Your task to perform on an android device: toggle translation in the chrome app Image 0: 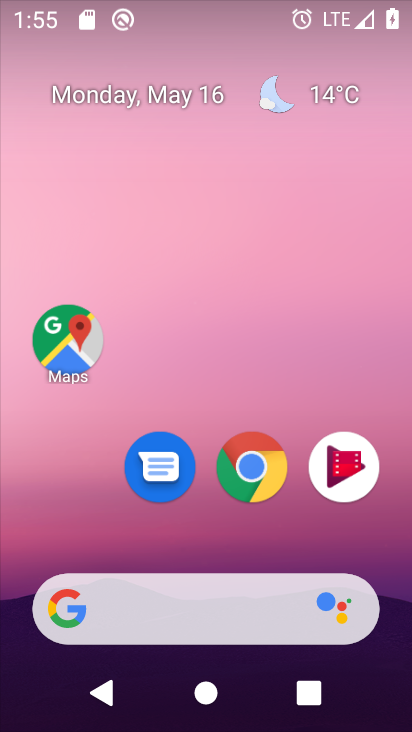
Step 0: drag from (178, 542) to (224, 205)
Your task to perform on an android device: toggle translation in the chrome app Image 1: 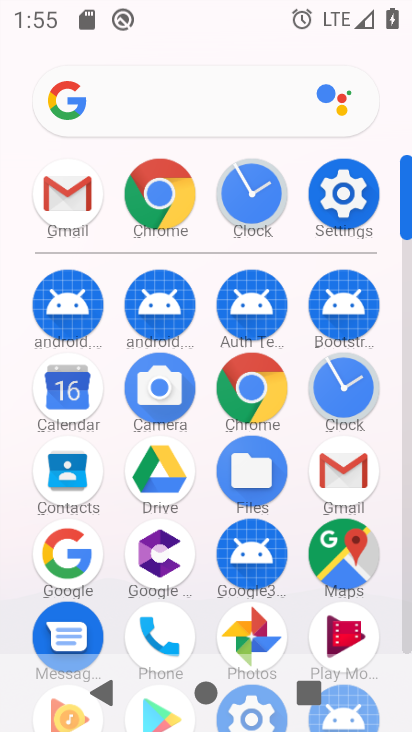
Step 1: click (324, 187)
Your task to perform on an android device: toggle translation in the chrome app Image 2: 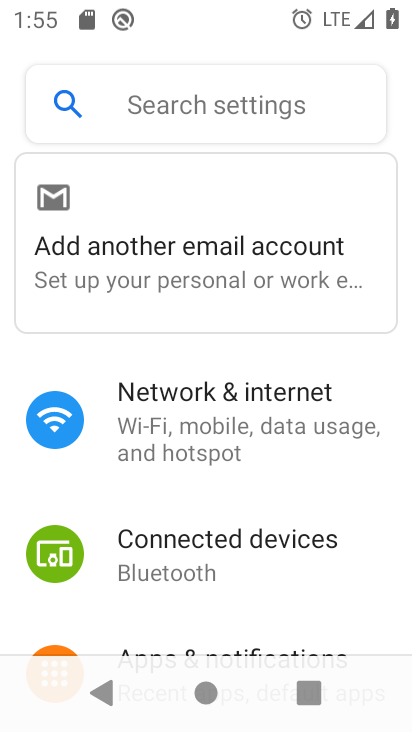
Step 2: press home button
Your task to perform on an android device: toggle translation in the chrome app Image 3: 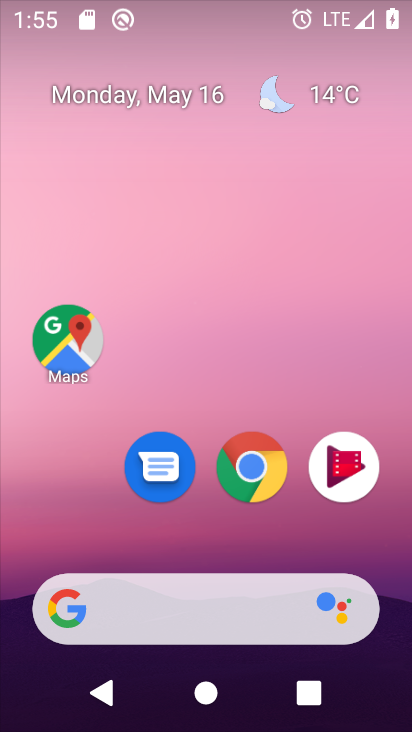
Step 3: drag from (206, 435) to (227, 206)
Your task to perform on an android device: toggle translation in the chrome app Image 4: 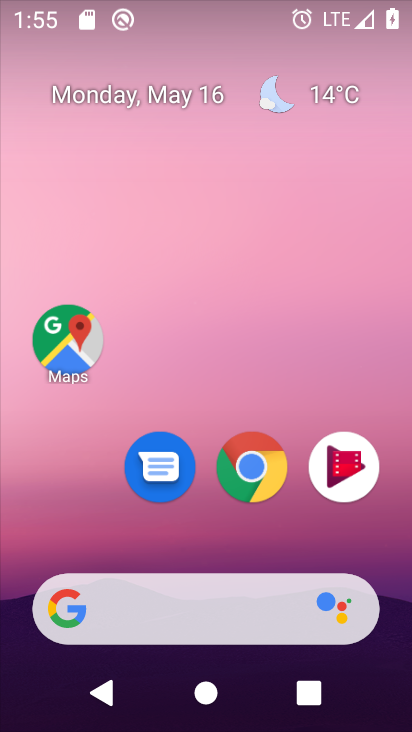
Step 4: click (238, 468)
Your task to perform on an android device: toggle translation in the chrome app Image 5: 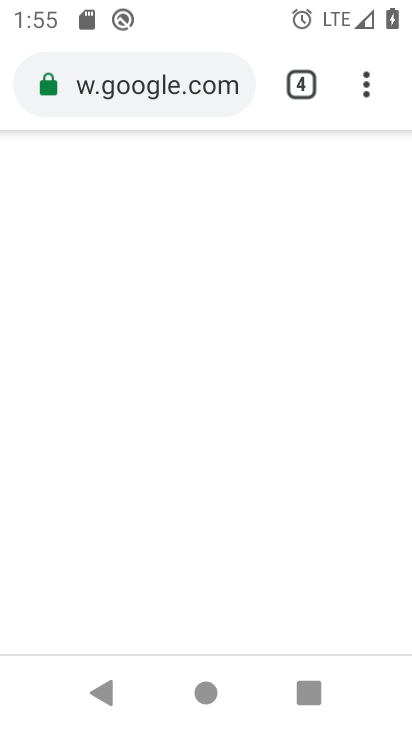
Step 5: click (352, 78)
Your task to perform on an android device: toggle translation in the chrome app Image 6: 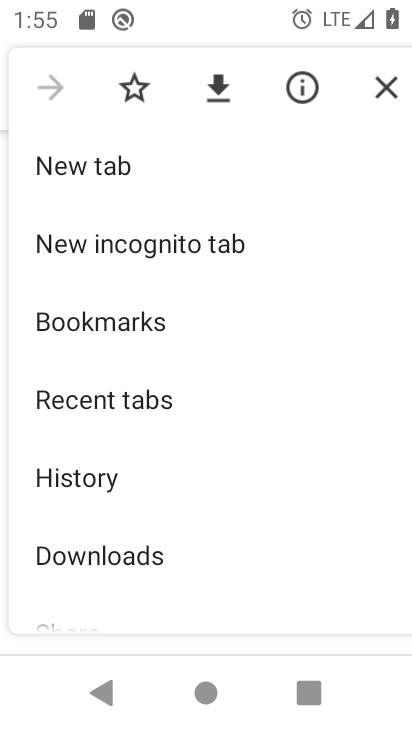
Step 6: drag from (196, 538) to (281, 200)
Your task to perform on an android device: toggle translation in the chrome app Image 7: 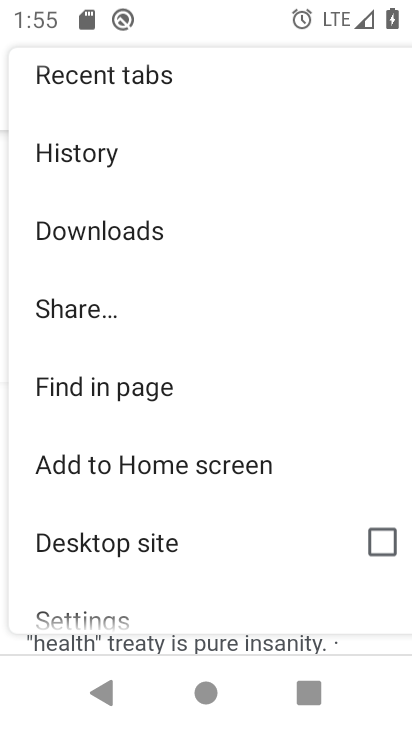
Step 7: drag from (94, 568) to (161, 362)
Your task to perform on an android device: toggle translation in the chrome app Image 8: 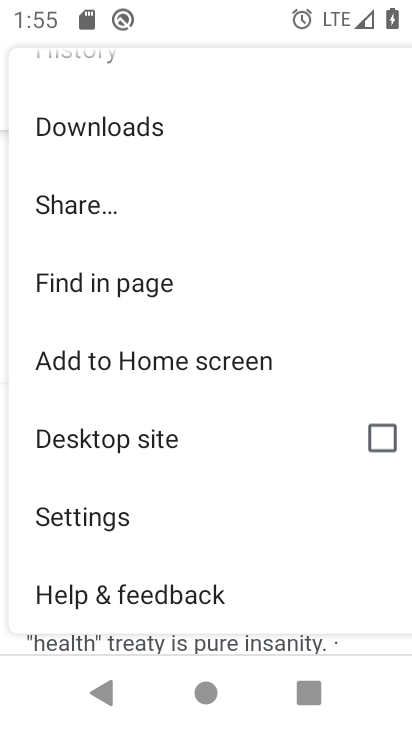
Step 8: click (99, 513)
Your task to perform on an android device: toggle translation in the chrome app Image 9: 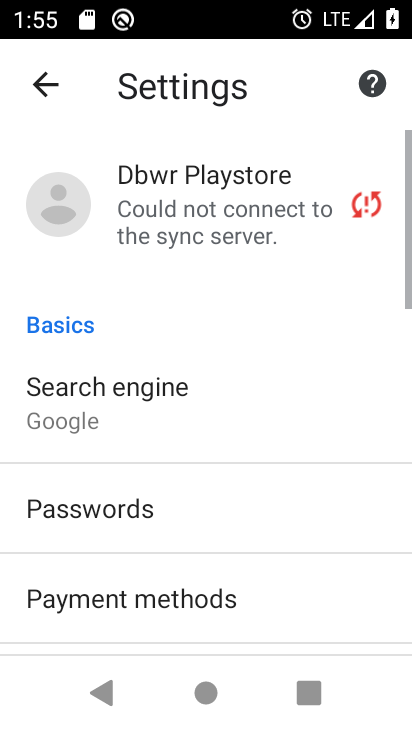
Step 9: drag from (248, 547) to (283, 151)
Your task to perform on an android device: toggle translation in the chrome app Image 10: 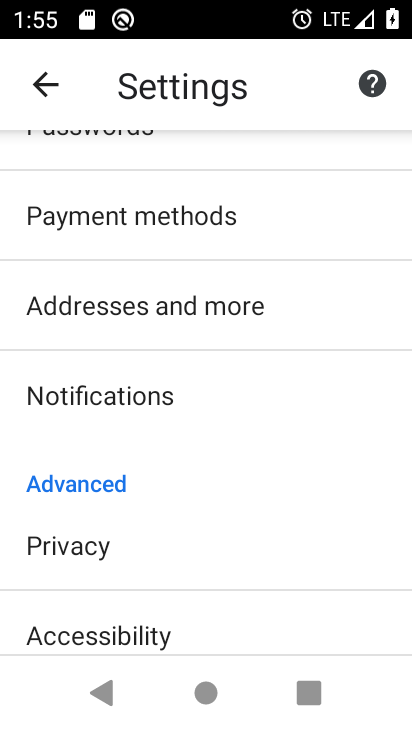
Step 10: drag from (167, 530) to (247, 220)
Your task to perform on an android device: toggle translation in the chrome app Image 11: 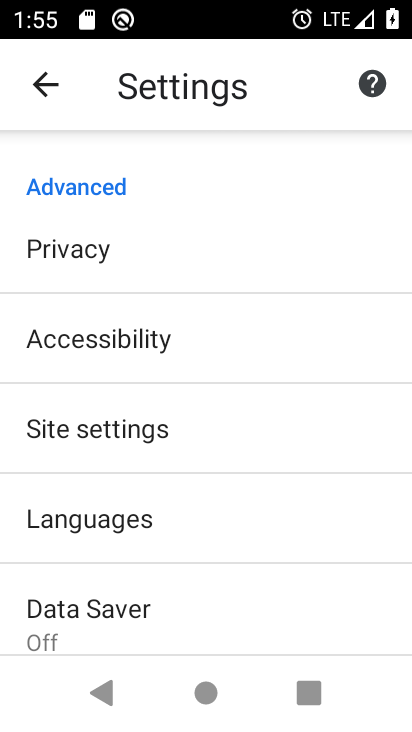
Step 11: drag from (134, 578) to (203, 331)
Your task to perform on an android device: toggle translation in the chrome app Image 12: 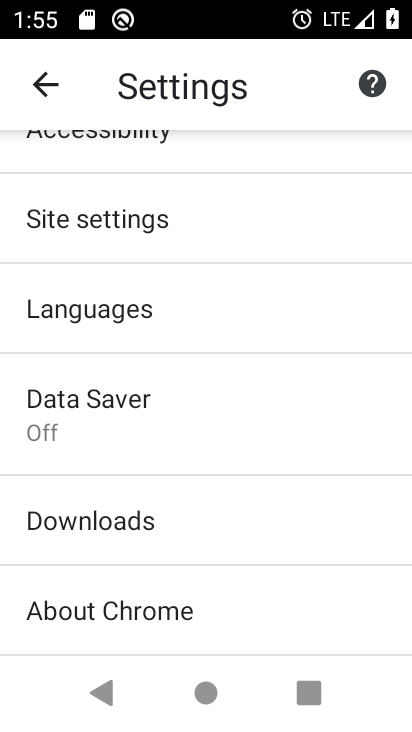
Step 12: click (133, 298)
Your task to perform on an android device: toggle translation in the chrome app Image 13: 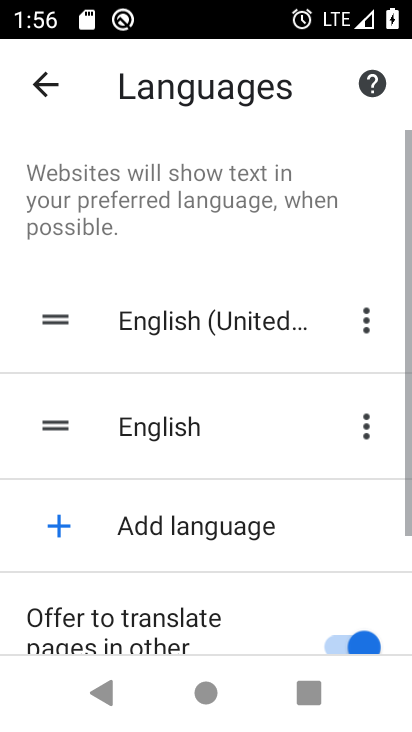
Step 13: drag from (337, 612) to (342, 426)
Your task to perform on an android device: toggle translation in the chrome app Image 14: 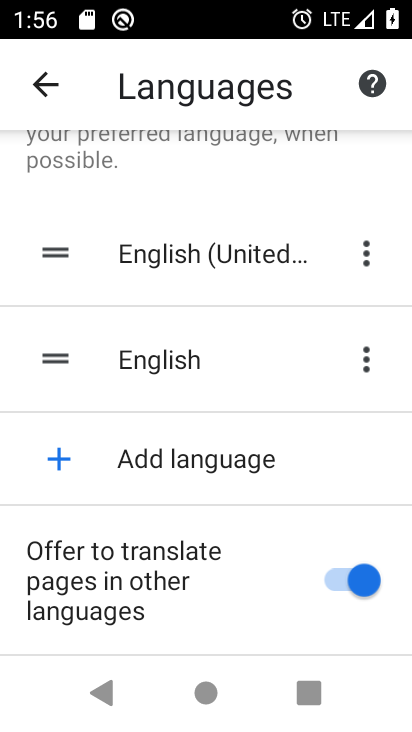
Step 14: click (342, 585)
Your task to perform on an android device: toggle translation in the chrome app Image 15: 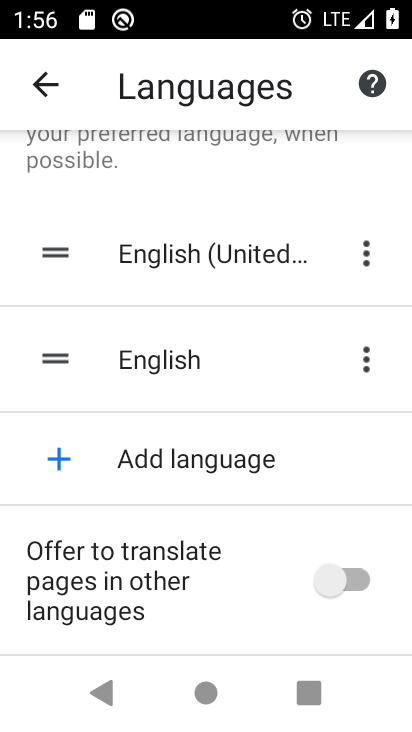
Step 15: task complete